Your task to perform on an android device: Go to ESPN.com Image 0: 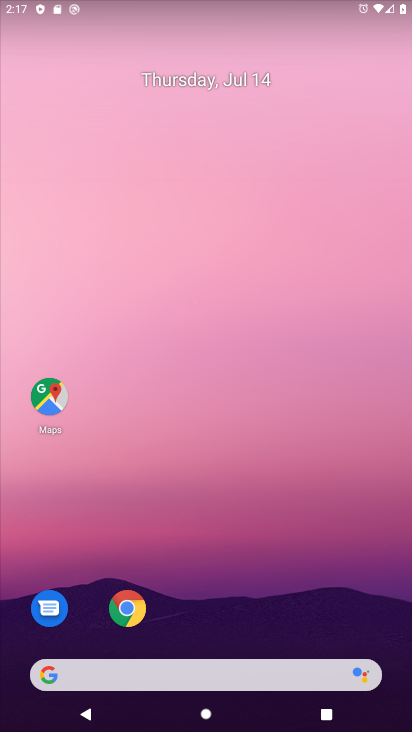
Step 0: click (116, 616)
Your task to perform on an android device: Go to ESPN.com Image 1: 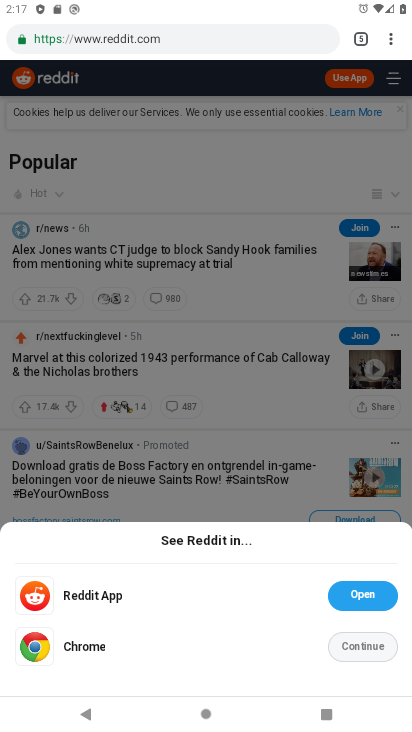
Step 1: click (391, 40)
Your task to perform on an android device: Go to ESPN.com Image 2: 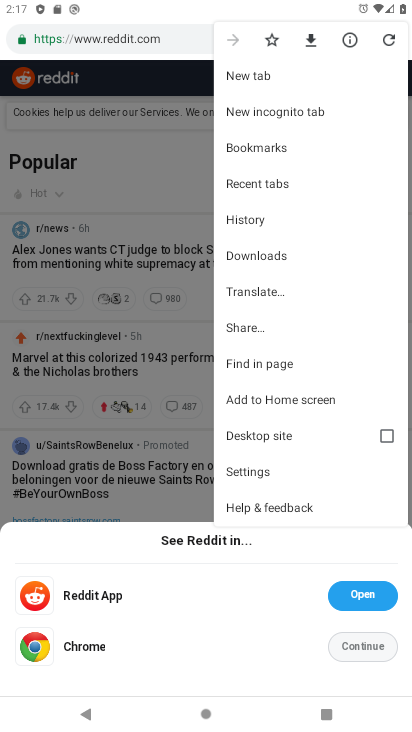
Step 2: click (240, 69)
Your task to perform on an android device: Go to ESPN.com Image 3: 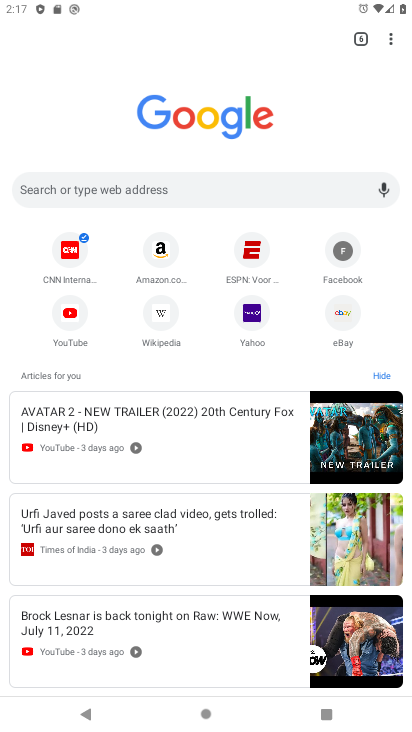
Step 3: click (258, 260)
Your task to perform on an android device: Go to ESPN.com Image 4: 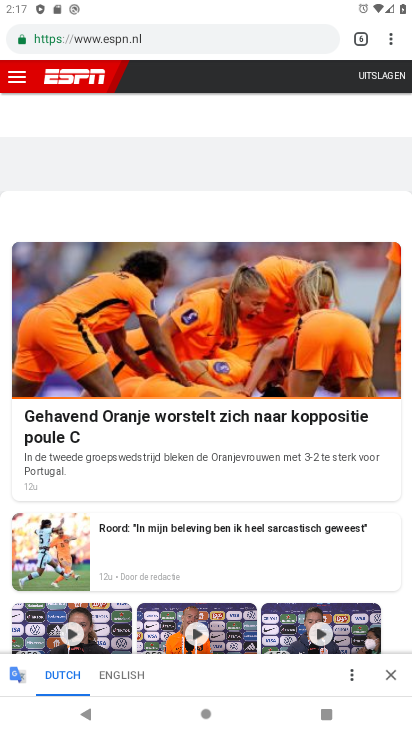
Step 4: task complete